Your task to perform on an android device: Open Google Maps and go to "Timeline" Image 0: 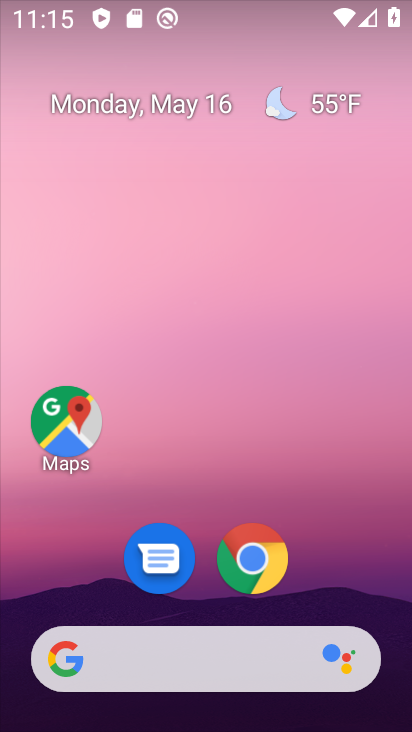
Step 0: click (76, 427)
Your task to perform on an android device: Open Google Maps and go to "Timeline" Image 1: 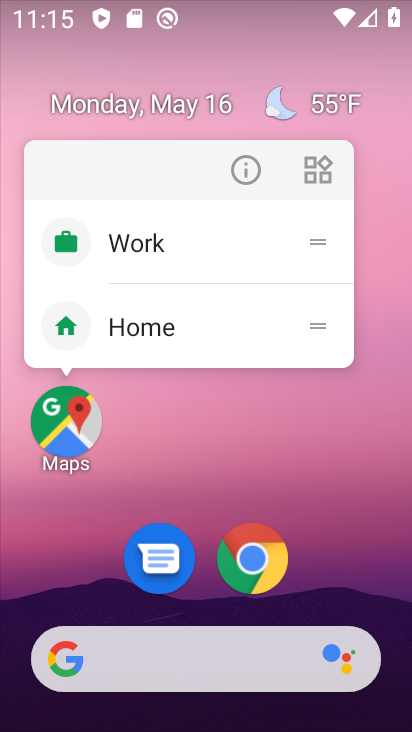
Step 1: click (69, 425)
Your task to perform on an android device: Open Google Maps and go to "Timeline" Image 2: 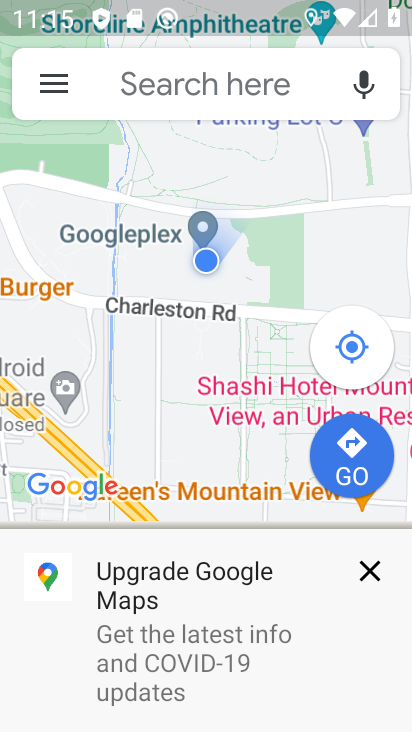
Step 2: click (50, 85)
Your task to perform on an android device: Open Google Maps and go to "Timeline" Image 3: 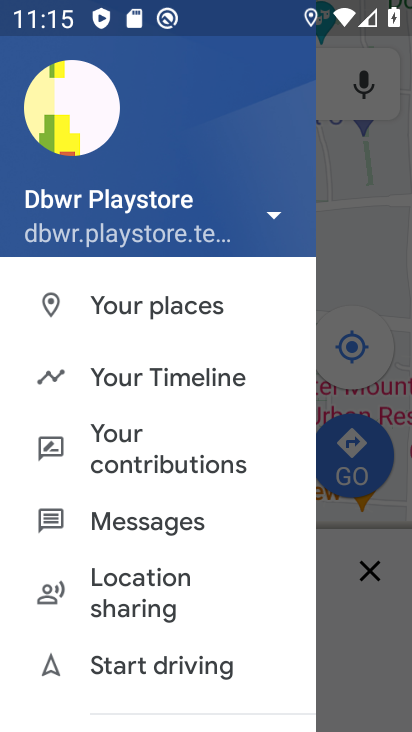
Step 3: click (160, 370)
Your task to perform on an android device: Open Google Maps and go to "Timeline" Image 4: 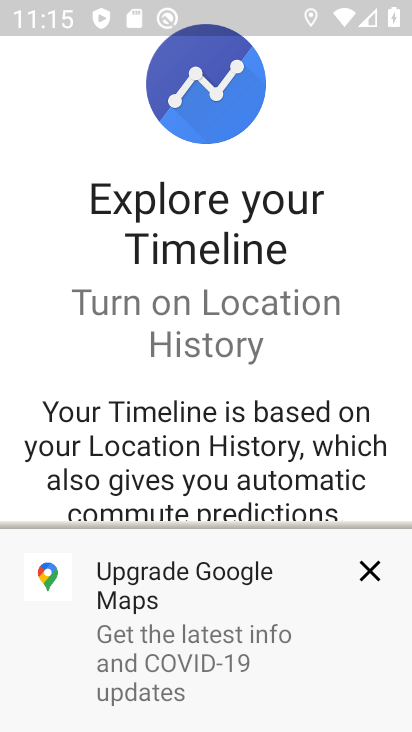
Step 4: click (375, 573)
Your task to perform on an android device: Open Google Maps and go to "Timeline" Image 5: 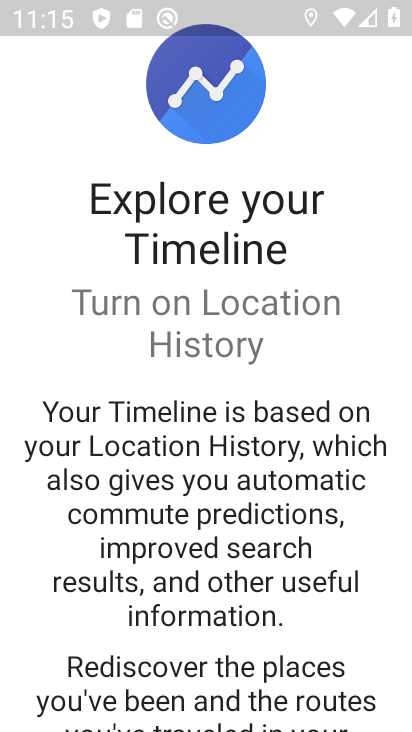
Step 5: drag from (254, 638) to (229, 226)
Your task to perform on an android device: Open Google Maps and go to "Timeline" Image 6: 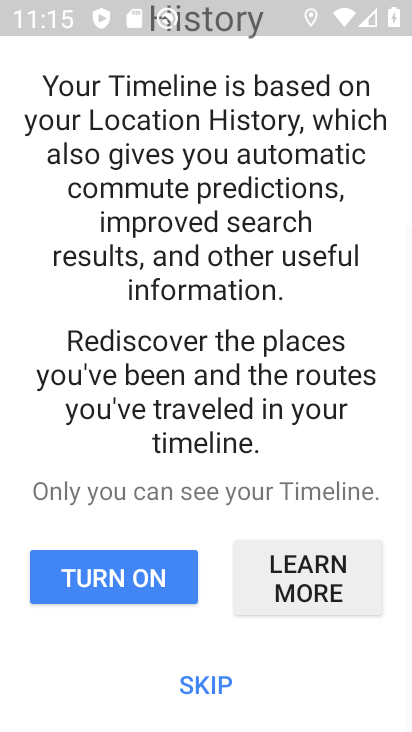
Step 6: click (200, 689)
Your task to perform on an android device: Open Google Maps and go to "Timeline" Image 7: 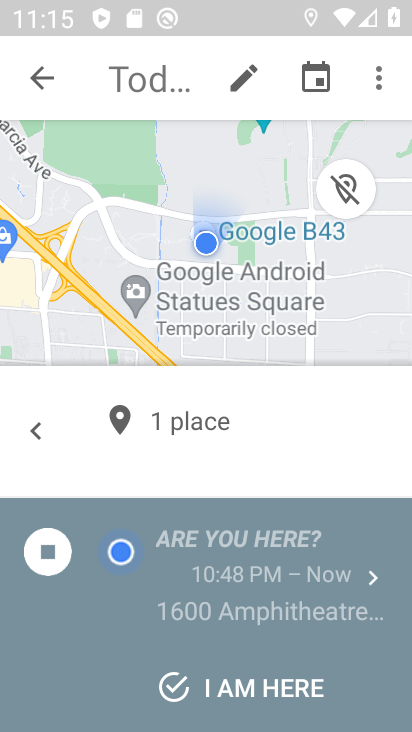
Step 7: task complete